Your task to perform on an android device: allow notifications from all sites in the chrome app Image 0: 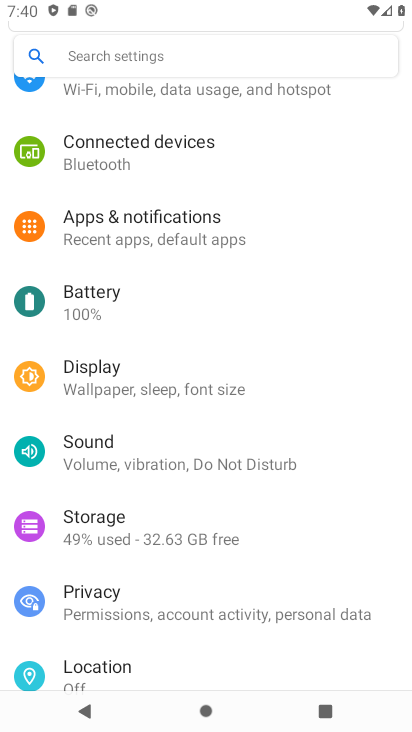
Step 0: press home button
Your task to perform on an android device: allow notifications from all sites in the chrome app Image 1: 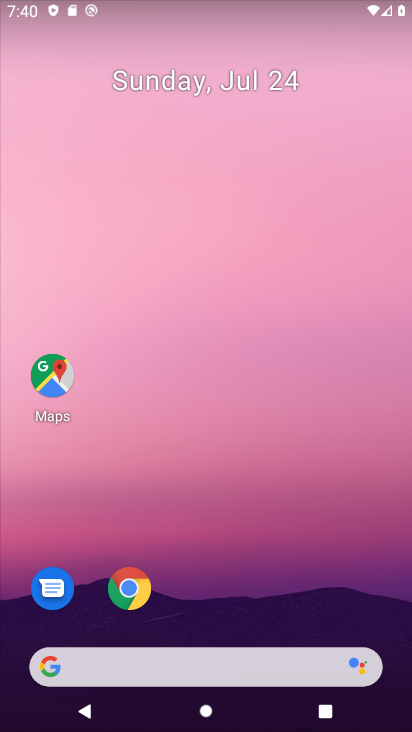
Step 1: click (126, 590)
Your task to perform on an android device: allow notifications from all sites in the chrome app Image 2: 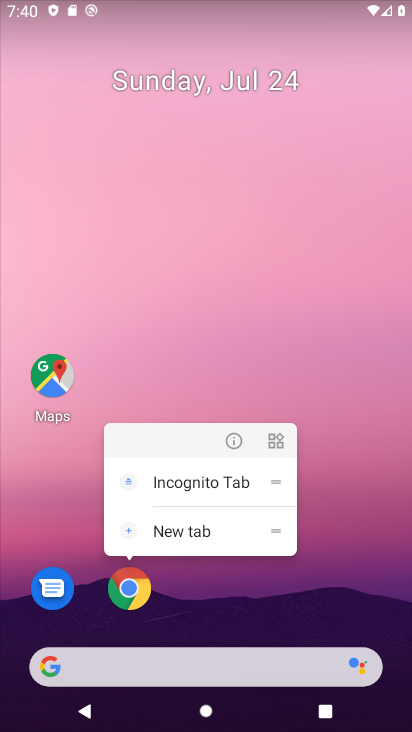
Step 2: click (231, 440)
Your task to perform on an android device: allow notifications from all sites in the chrome app Image 3: 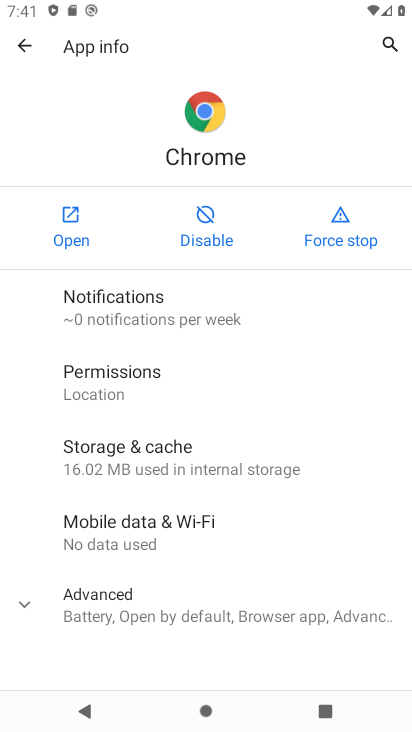
Step 3: click (199, 272)
Your task to perform on an android device: allow notifications from all sites in the chrome app Image 4: 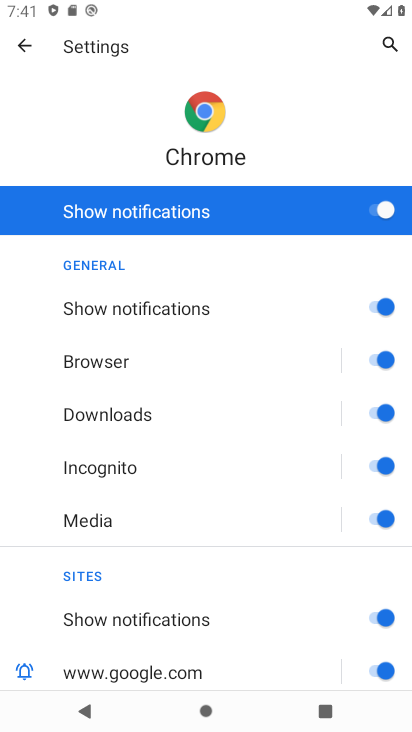
Step 4: task complete